Your task to perform on an android device: turn on javascript in the chrome app Image 0: 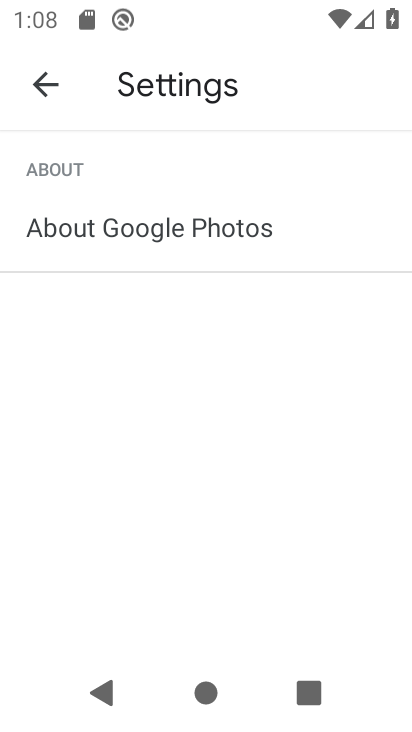
Step 0: press home button
Your task to perform on an android device: turn on javascript in the chrome app Image 1: 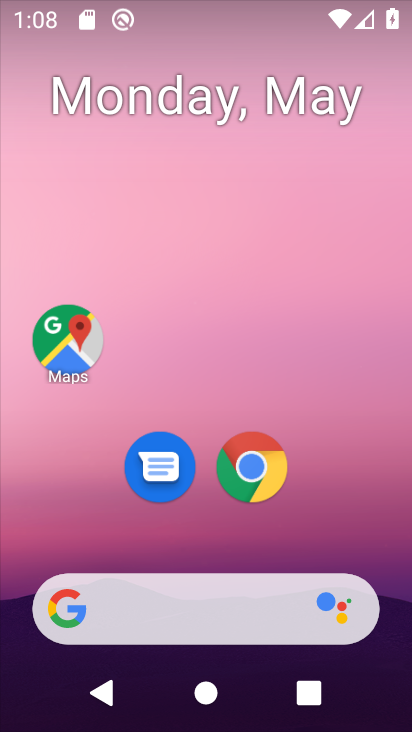
Step 1: click (240, 473)
Your task to perform on an android device: turn on javascript in the chrome app Image 2: 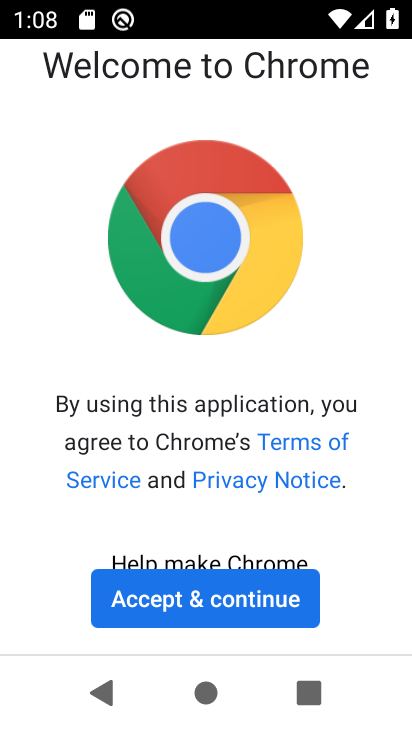
Step 2: click (240, 592)
Your task to perform on an android device: turn on javascript in the chrome app Image 3: 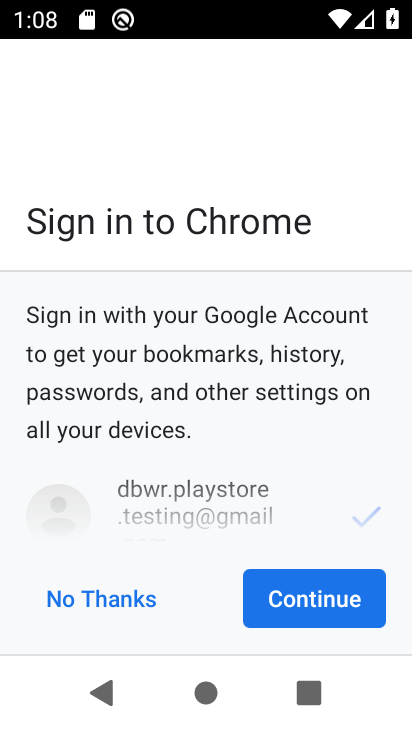
Step 3: click (264, 598)
Your task to perform on an android device: turn on javascript in the chrome app Image 4: 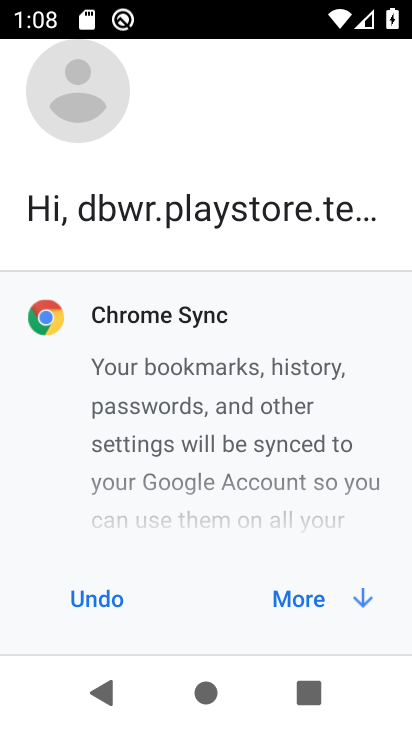
Step 4: click (349, 604)
Your task to perform on an android device: turn on javascript in the chrome app Image 5: 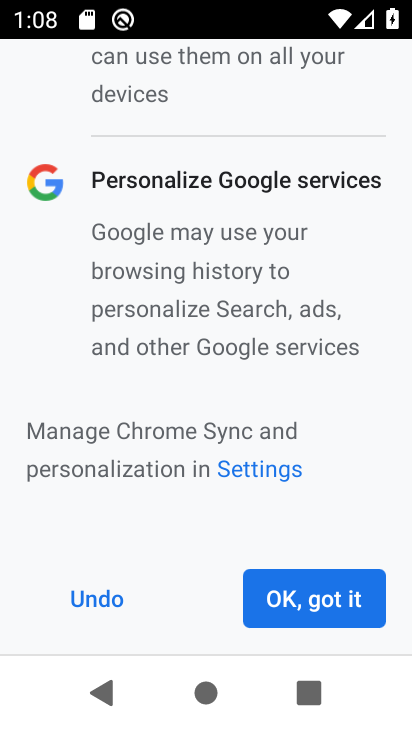
Step 5: click (349, 600)
Your task to perform on an android device: turn on javascript in the chrome app Image 6: 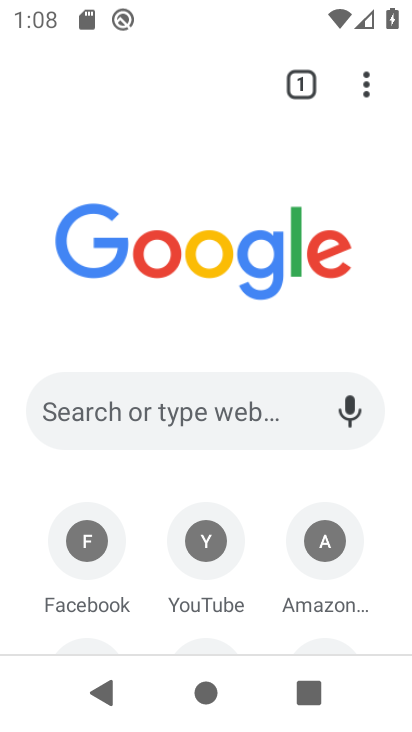
Step 6: click (359, 88)
Your task to perform on an android device: turn on javascript in the chrome app Image 7: 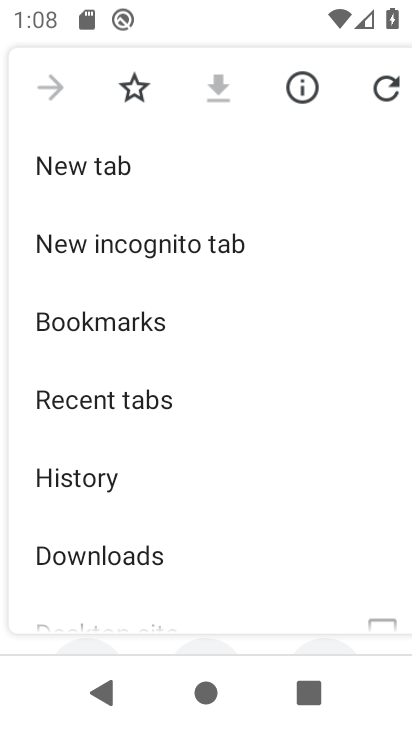
Step 7: drag from (192, 531) to (143, 148)
Your task to perform on an android device: turn on javascript in the chrome app Image 8: 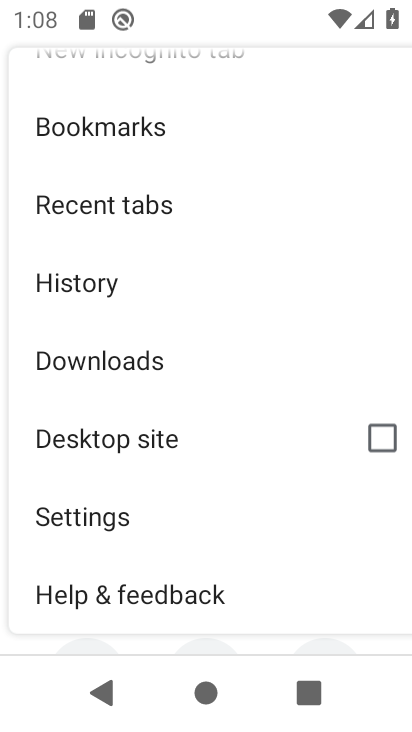
Step 8: click (119, 510)
Your task to perform on an android device: turn on javascript in the chrome app Image 9: 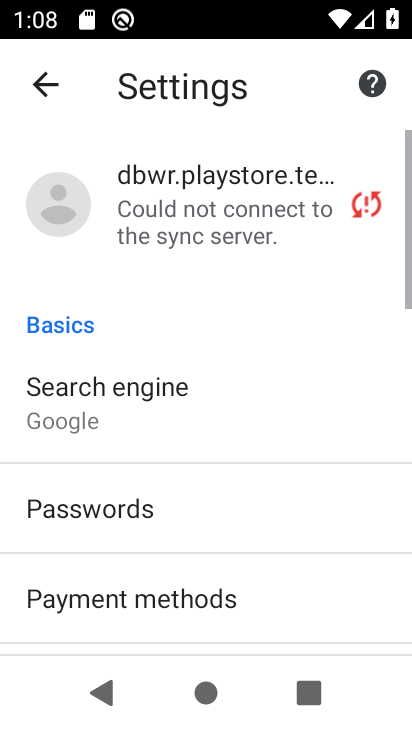
Step 9: drag from (132, 507) to (112, 38)
Your task to perform on an android device: turn on javascript in the chrome app Image 10: 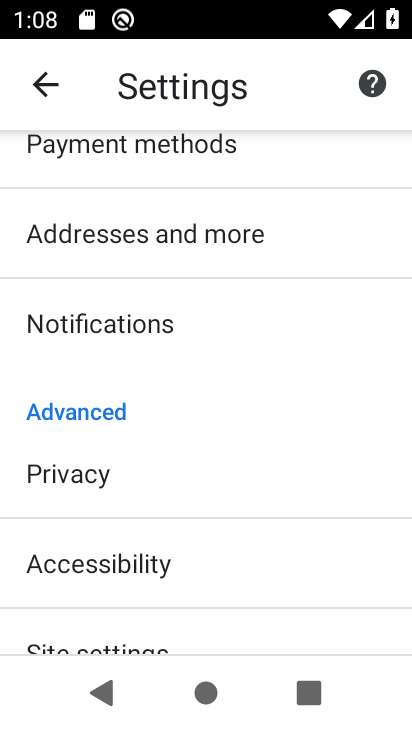
Step 10: drag from (132, 578) to (91, 331)
Your task to perform on an android device: turn on javascript in the chrome app Image 11: 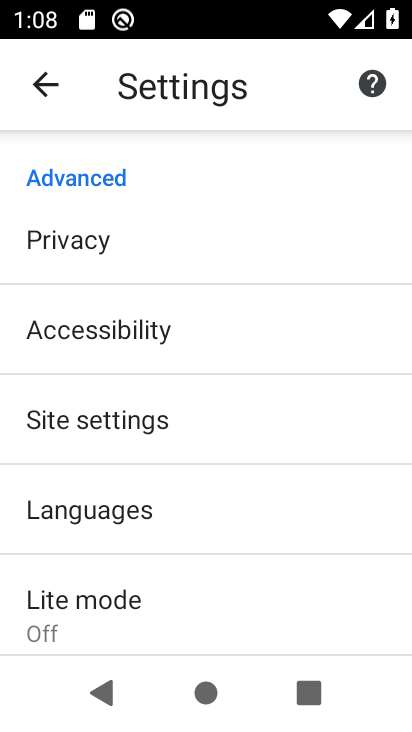
Step 11: click (97, 433)
Your task to perform on an android device: turn on javascript in the chrome app Image 12: 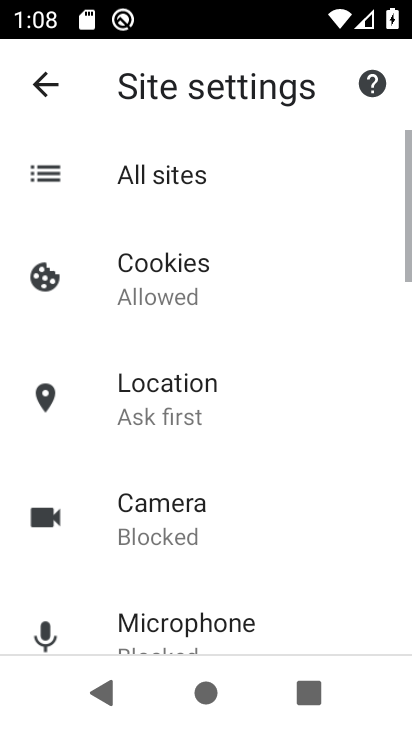
Step 12: drag from (173, 616) to (144, 170)
Your task to perform on an android device: turn on javascript in the chrome app Image 13: 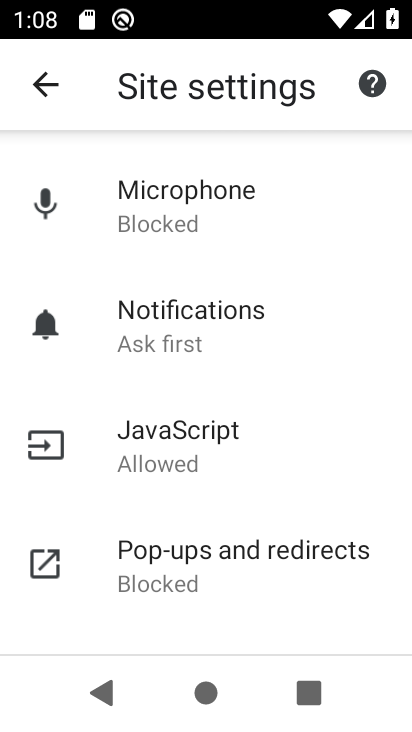
Step 13: click (204, 473)
Your task to perform on an android device: turn on javascript in the chrome app Image 14: 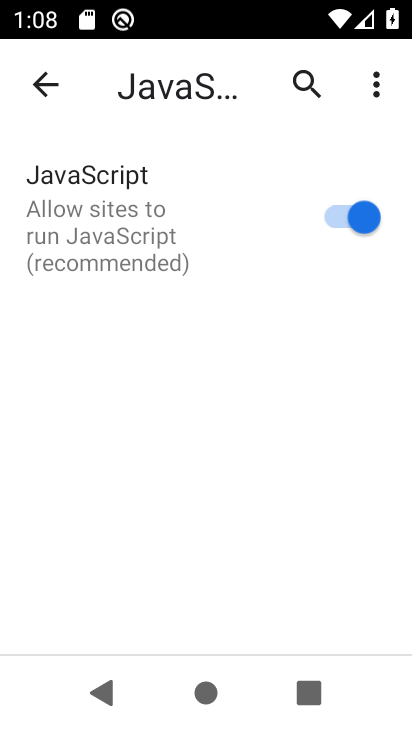
Step 14: task complete